Your task to perform on an android device: What's on my calendar tomorrow? Image 0: 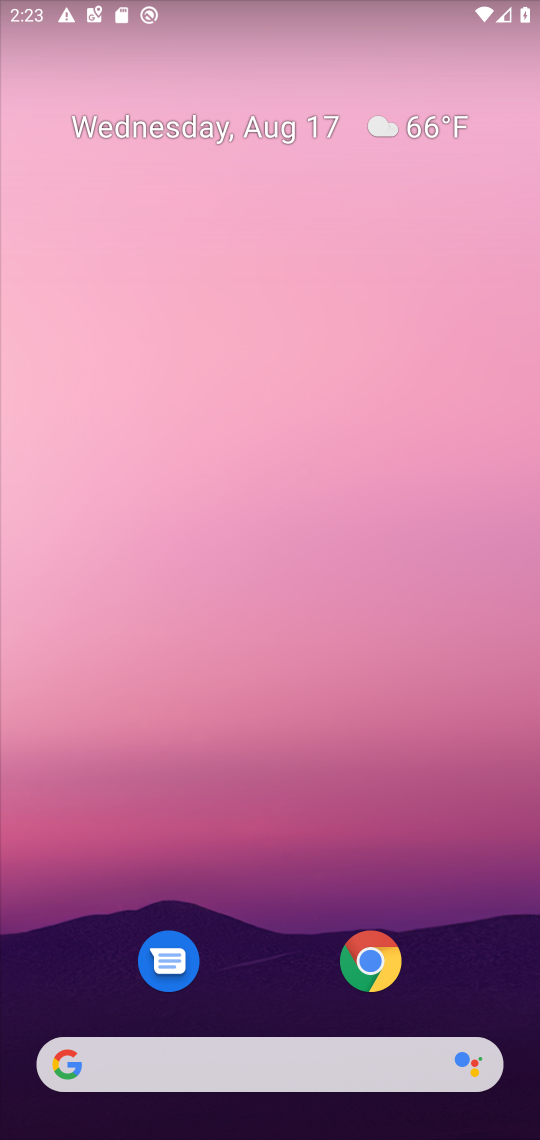
Step 0: drag from (293, 992) to (425, 0)
Your task to perform on an android device: What's on my calendar tomorrow? Image 1: 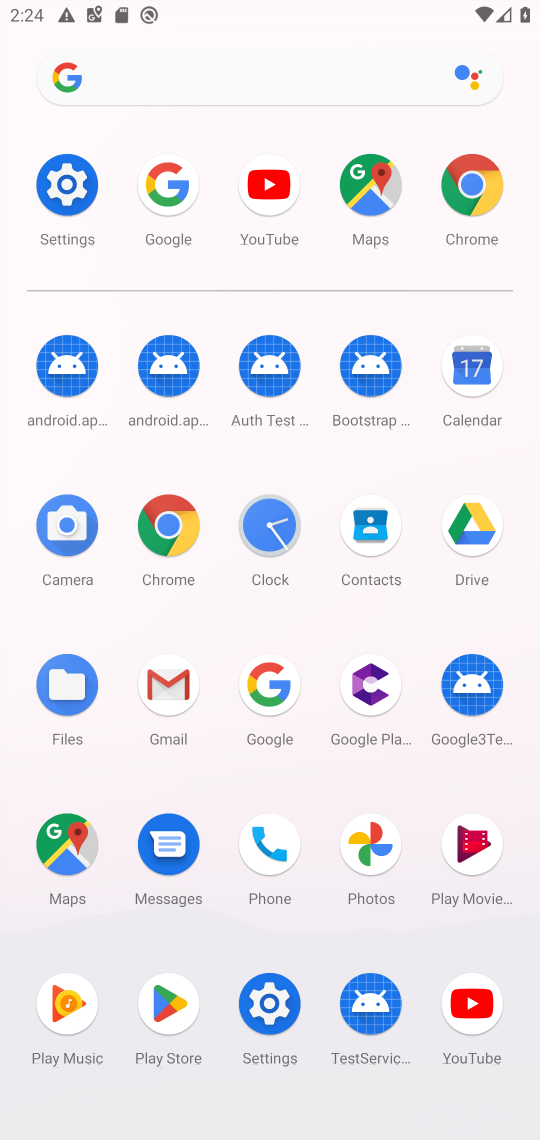
Step 1: click (457, 436)
Your task to perform on an android device: What's on my calendar tomorrow? Image 2: 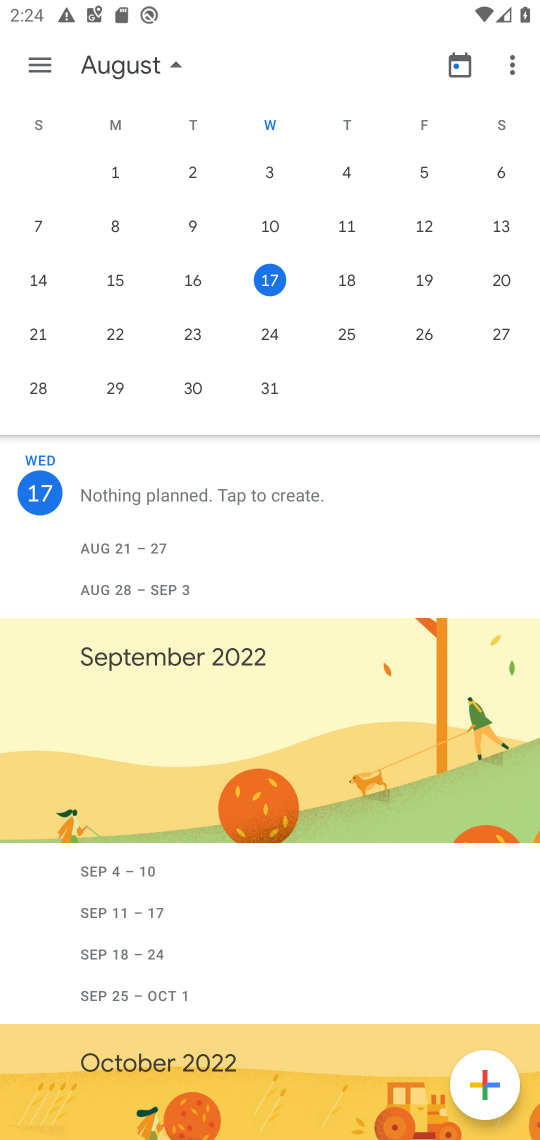
Step 2: click (342, 281)
Your task to perform on an android device: What's on my calendar tomorrow? Image 3: 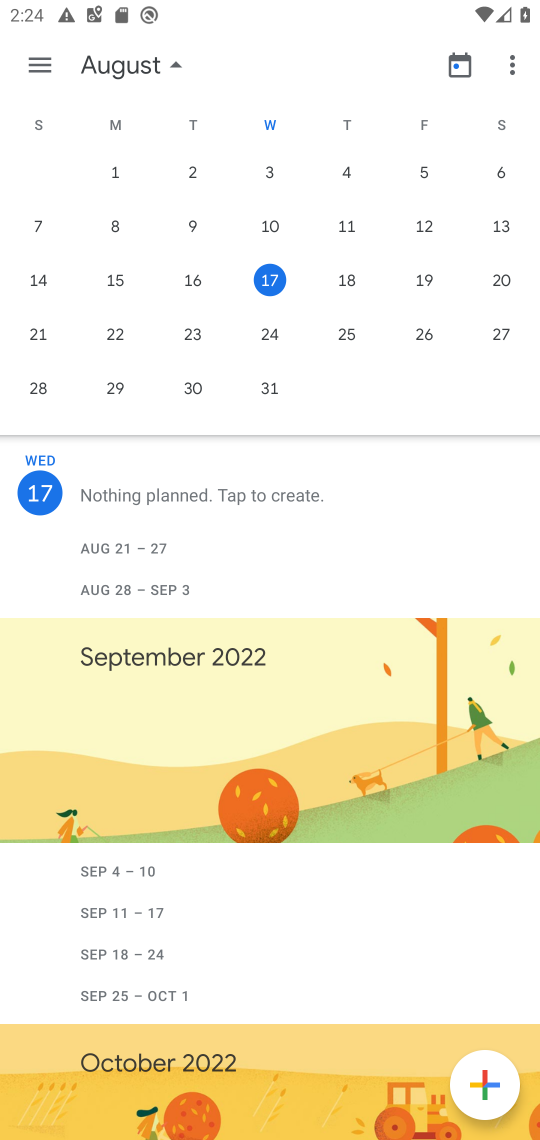
Step 3: task complete